Your task to perform on an android device: Open the map Image 0: 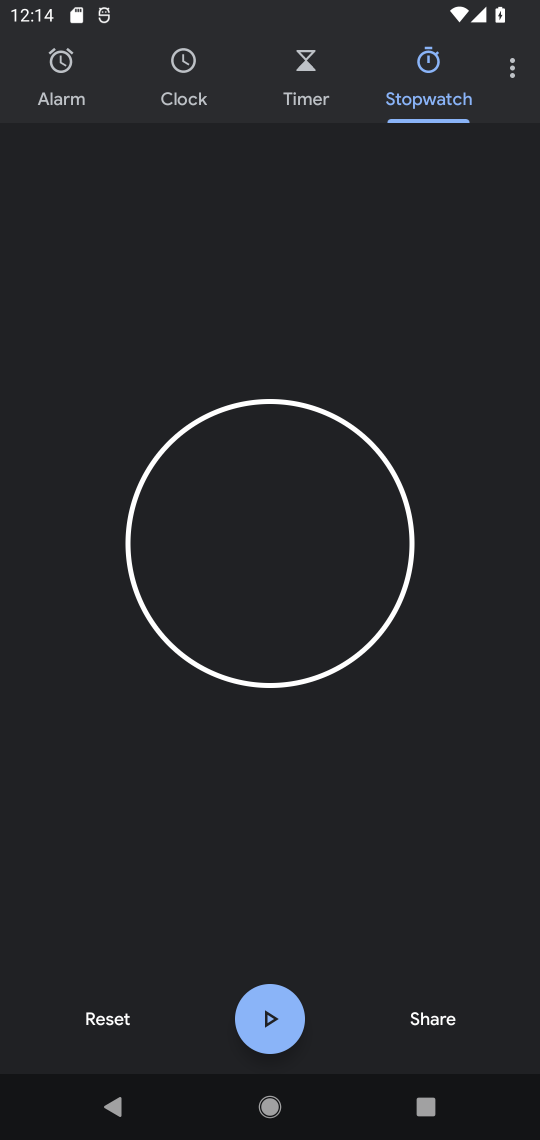
Step 0: press home button
Your task to perform on an android device: Open the map Image 1: 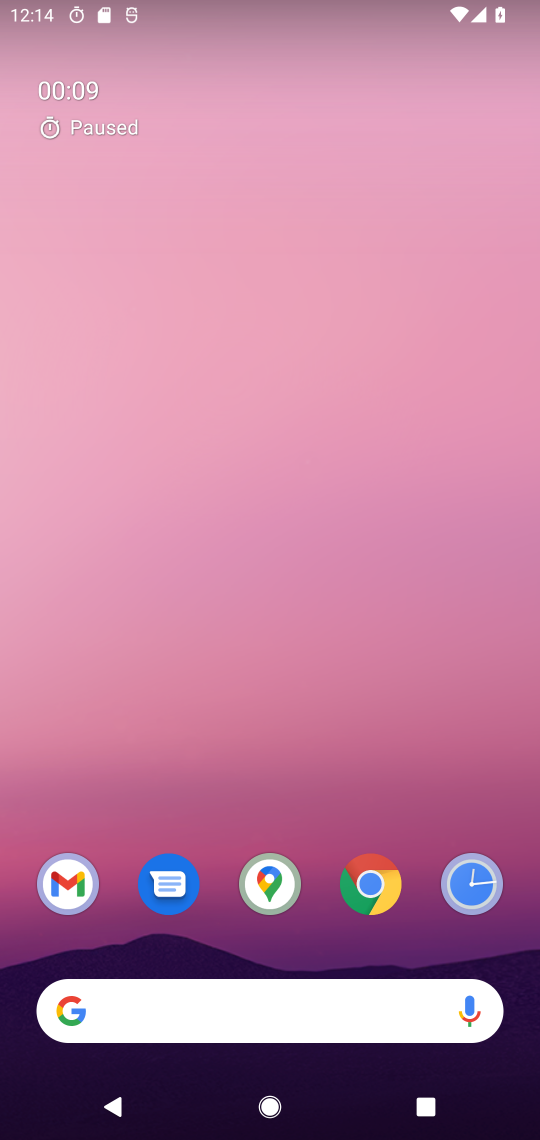
Step 1: click (268, 906)
Your task to perform on an android device: Open the map Image 2: 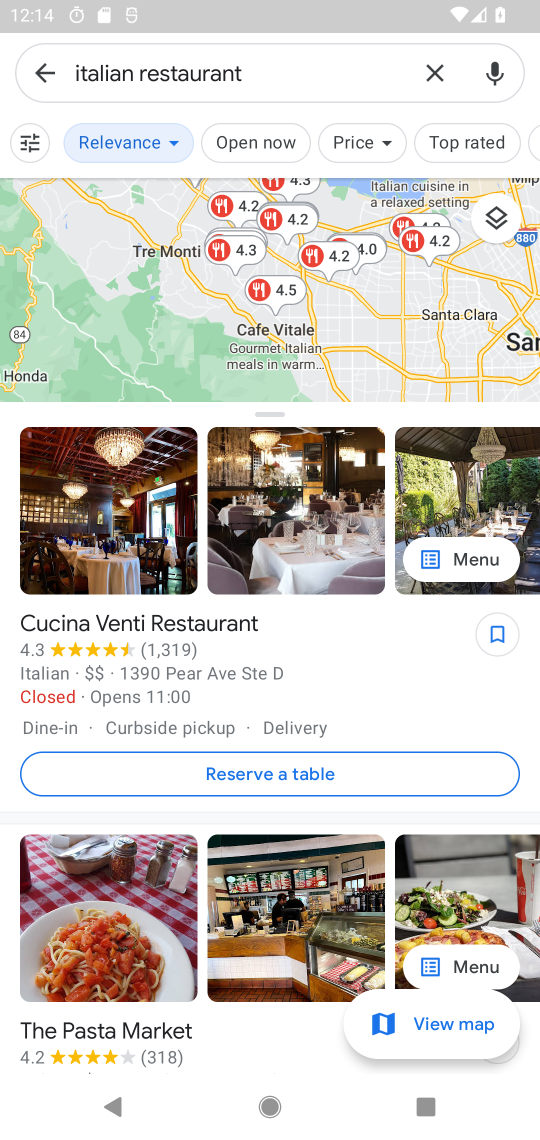
Step 2: task complete